Your task to perform on an android device: What's the weather today? Image 0: 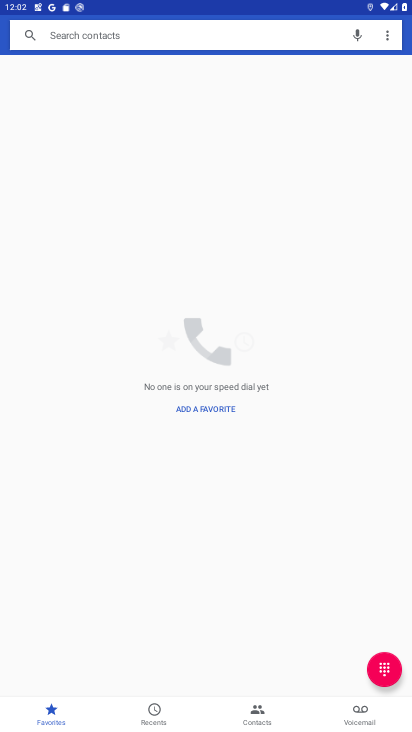
Step 0: press home button
Your task to perform on an android device: What's the weather today? Image 1: 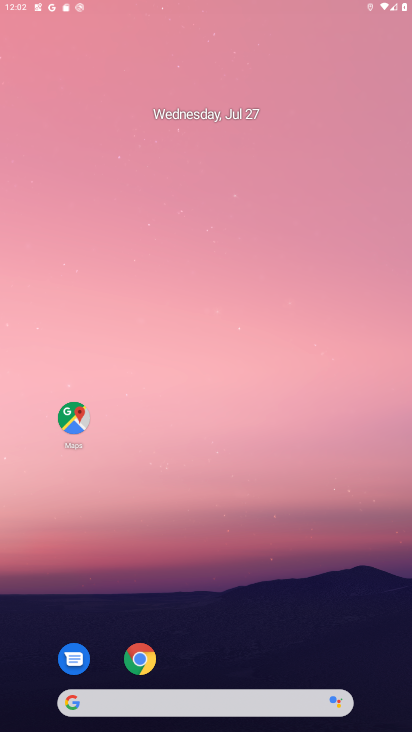
Step 1: drag from (289, 702) to (344, 0)
Your task to perform on an android device: What's the weather today? Image 2: 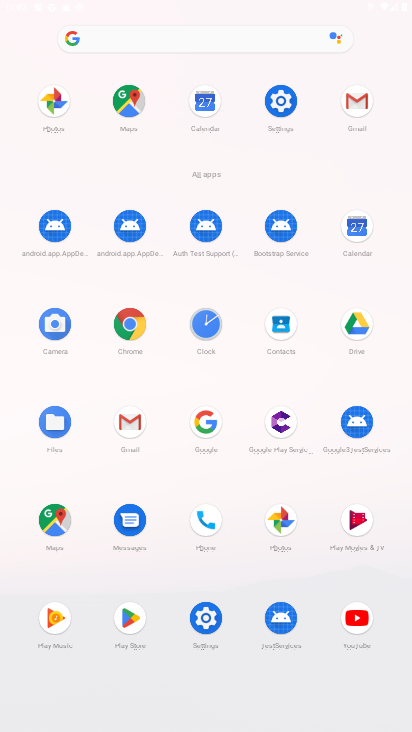
Step 2: click (210, 423)
Your task to perform on an android device: What's the weather today? Image 3: 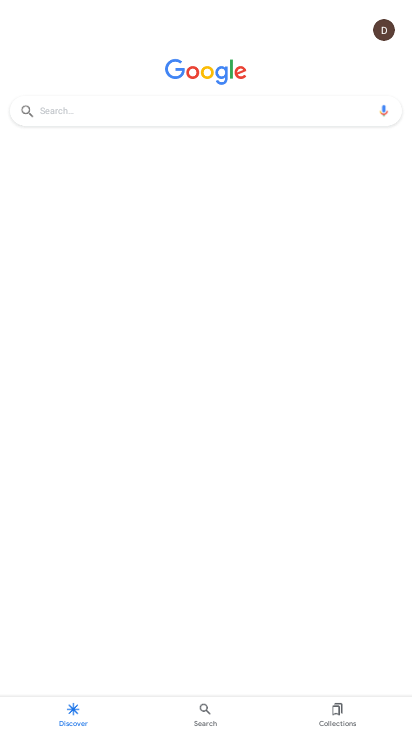
Step 3: click (162, 109)
Your task to perform on an android device: What's the weather today? Image 4: 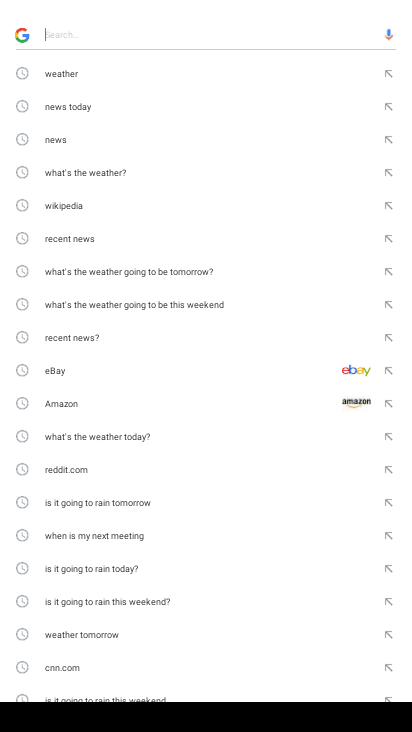
Step 4: type "whats the weather today"
Your task to perform on an android device: What's the weather today? Image 5: 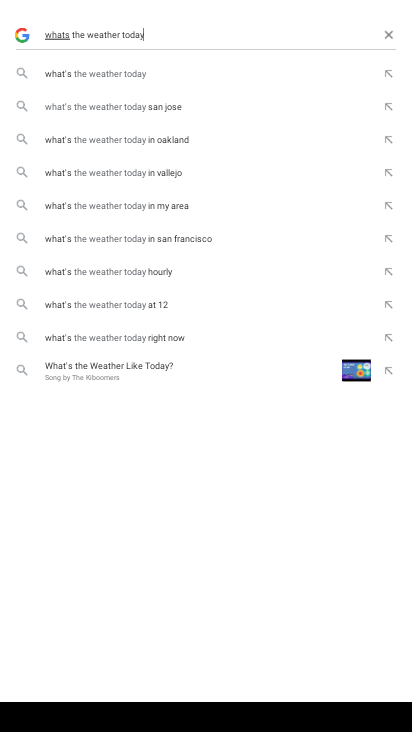
Step 5: click (129, 72)
Your task to perform on an android device: What's the weather today? Image 6: 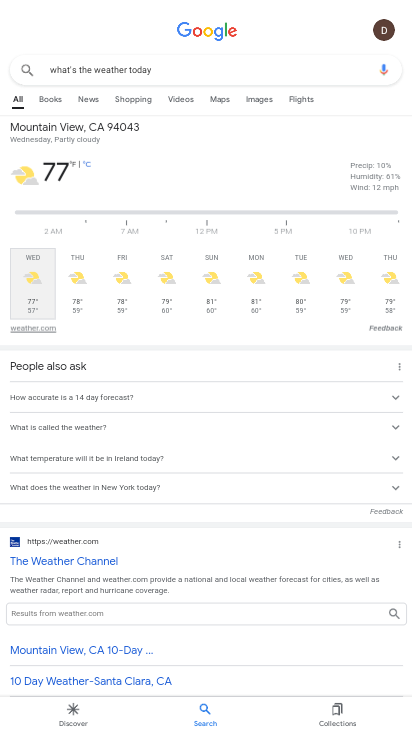
Step 6: task complete